Your task to perform on an android device: turn off wifi Image 0: 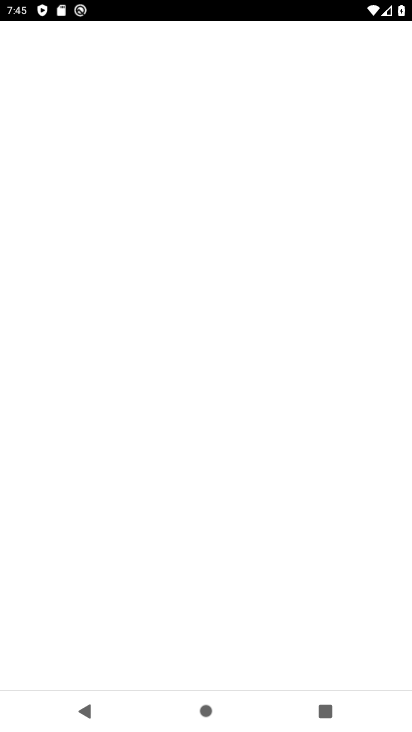
Step 0: drag from (202, 624) to (198, 115)
Your task to perform on an android device: turn off wifi Image 1: 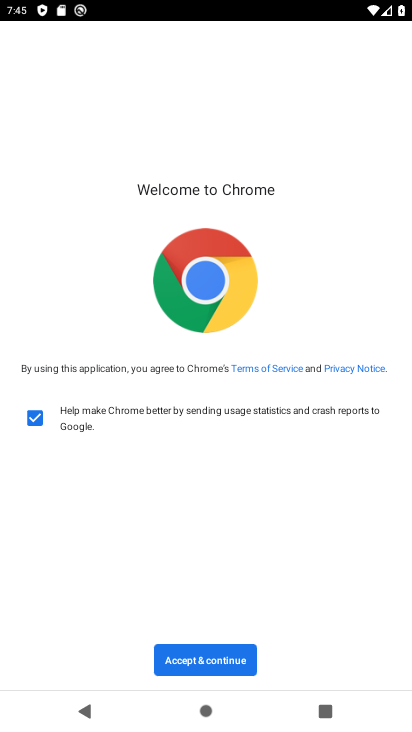
Step 1: press home button
Your task to perform on an android device: turn off wifi Image 2: 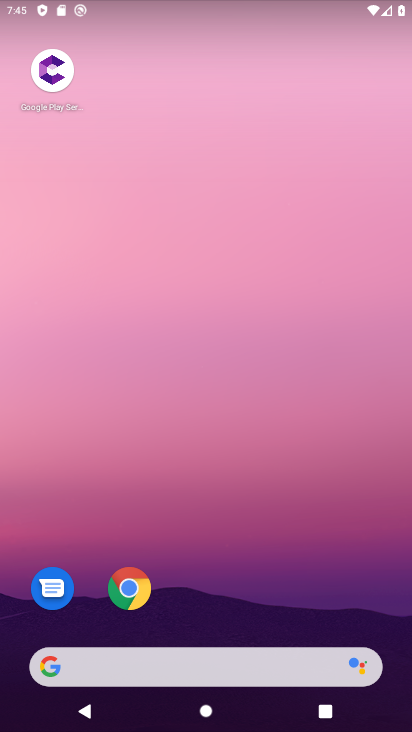
Step 2: drag from (198, 624) to (220, 132)
Your task to perform on an android device: turn off wifi Image 3: 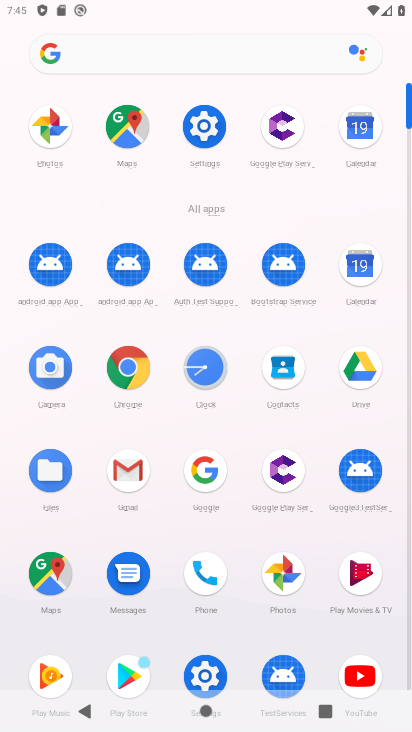
Step 3: click (199, 129)
Your task to perform on an android device: turn off wifi Image 4: 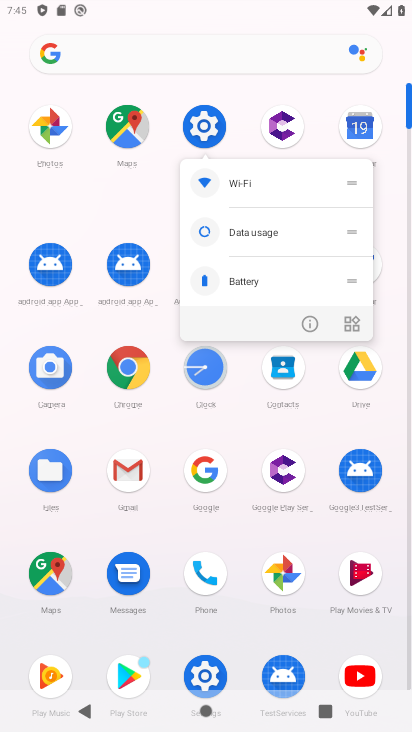
Step 4: click (74, 200)
Your task to perform on an android device: turn off wifi Image 5: 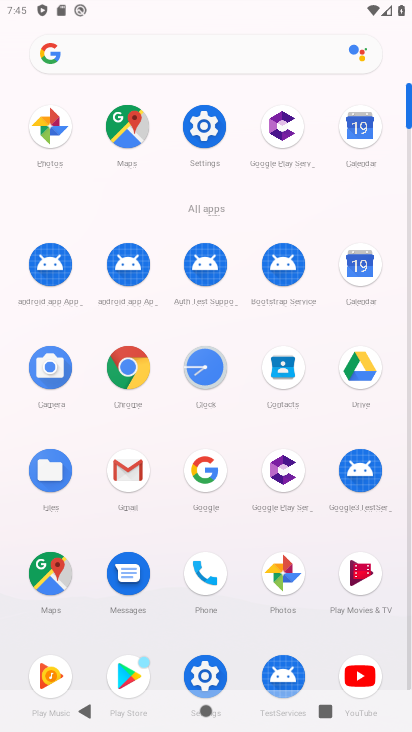
Step 5: click (210, 122)
Your task to perform on an android device: turn off wifi Image 6: 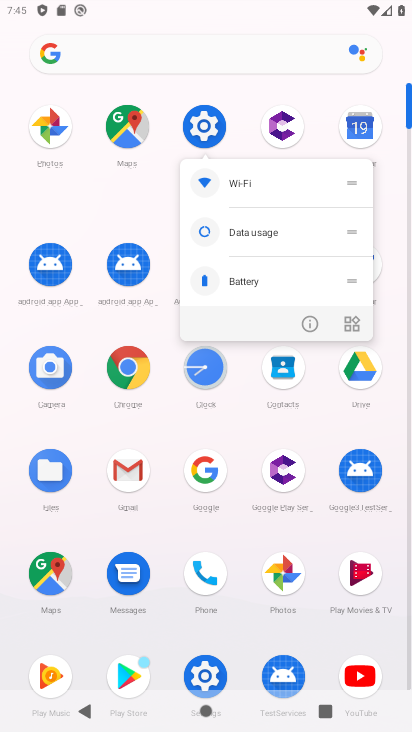
Step 6: click (126, 197)
Your task to perform on an android device: turn off wifi Image 7: 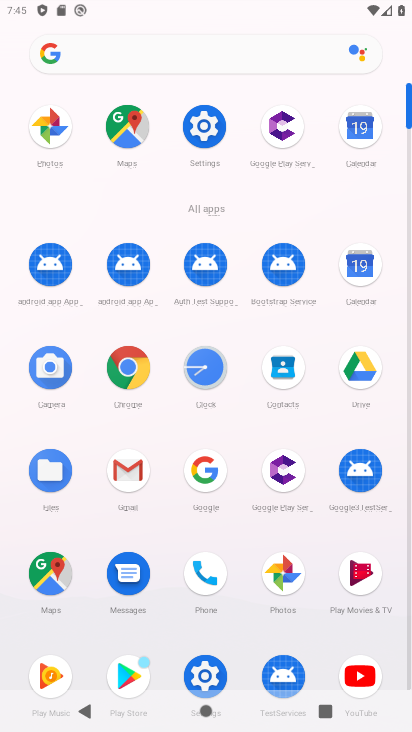
Step 7: click (200, 122)
Your task to perform on an android device: turn off wifi Image 8: 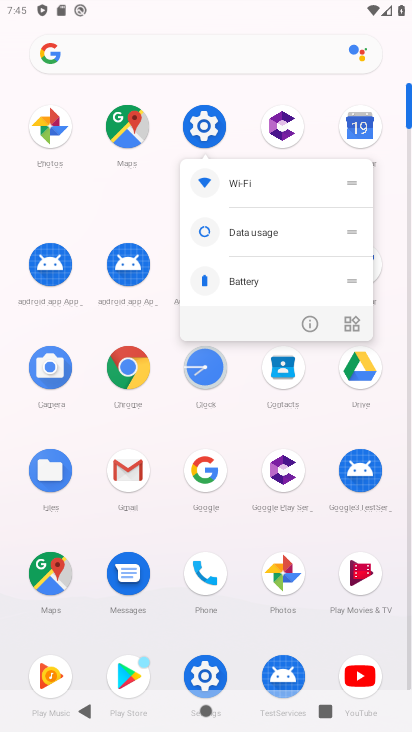
Step 8: click (200, 122)
Your task to perform on an android device: turn off wifi Image 9: 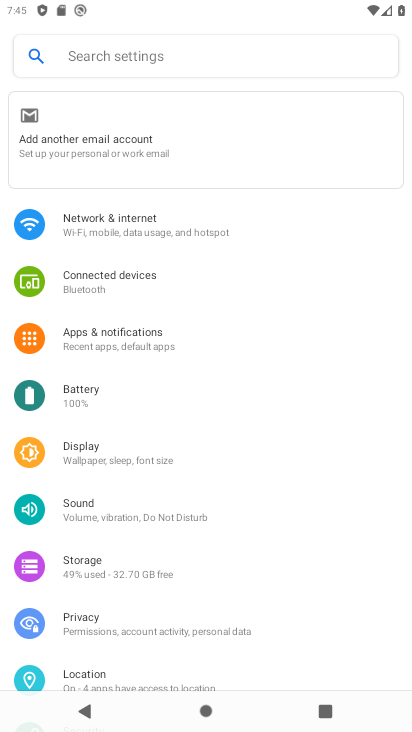
Step 9: click (117, 226)
Your task to perform on an android device: turn off wifi Image 10: 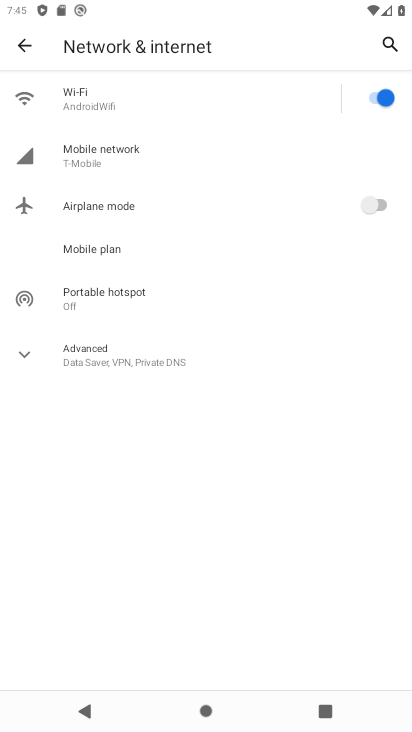
Step 10: click (367, 93)
Your task to perform on an android device: turn off wifi Image 11: 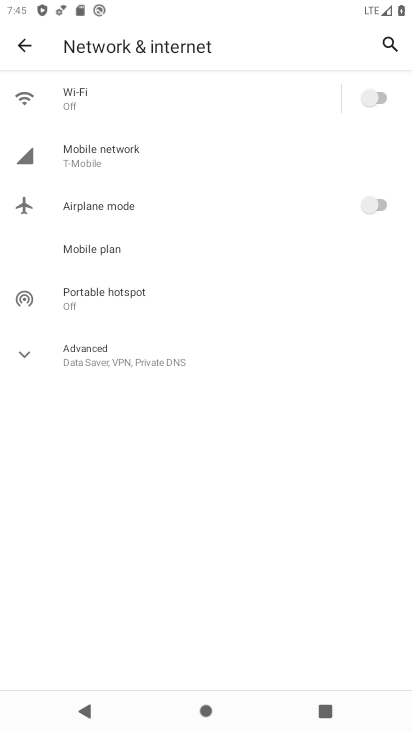
Step 11: task complete